Your task to perform on an android device: turn off javascript in the chrome app Image 0: 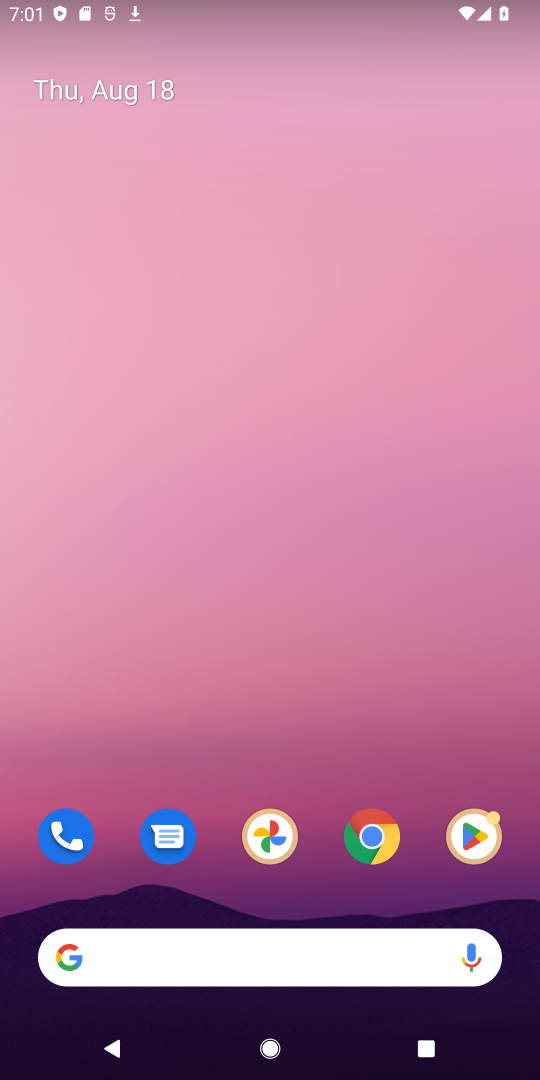
Step 0: drag from (280, 751) to (314, 1)
Your task to perform on an android device: turn off javascript in the chrome app Image 1: 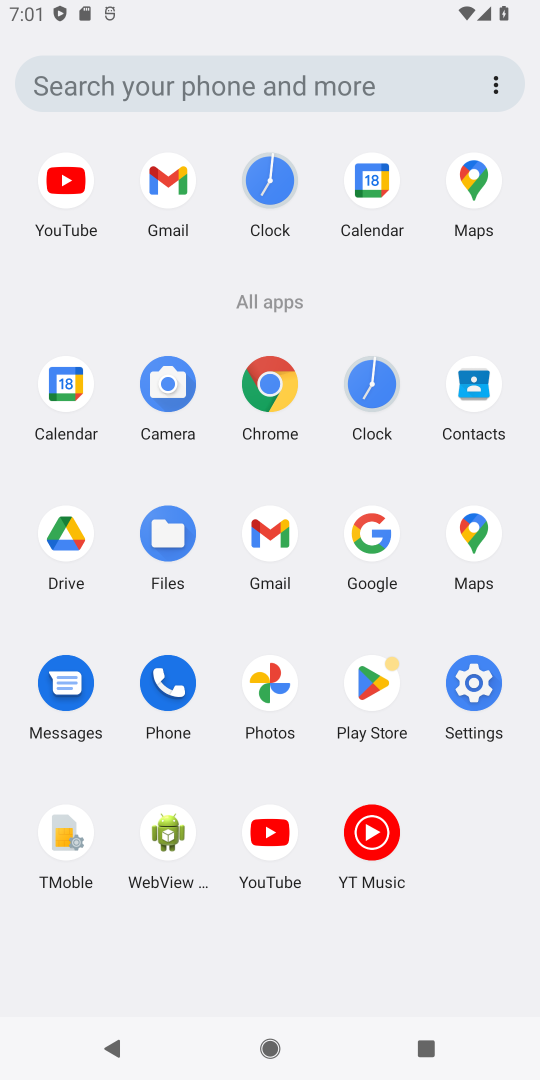
Step 1: click (275, 367)
Your task to perform on an android device: turn off javascript in the chrome app Image 2: 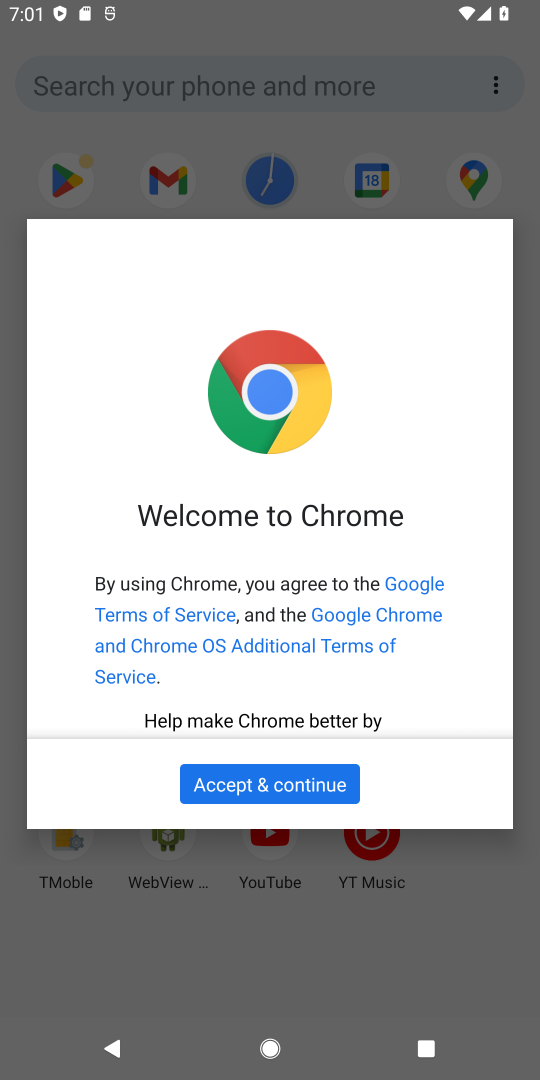
Step 2: click (327, 781)
Your task to perform on an android device: turn off javascript in the chrome app Image 3: 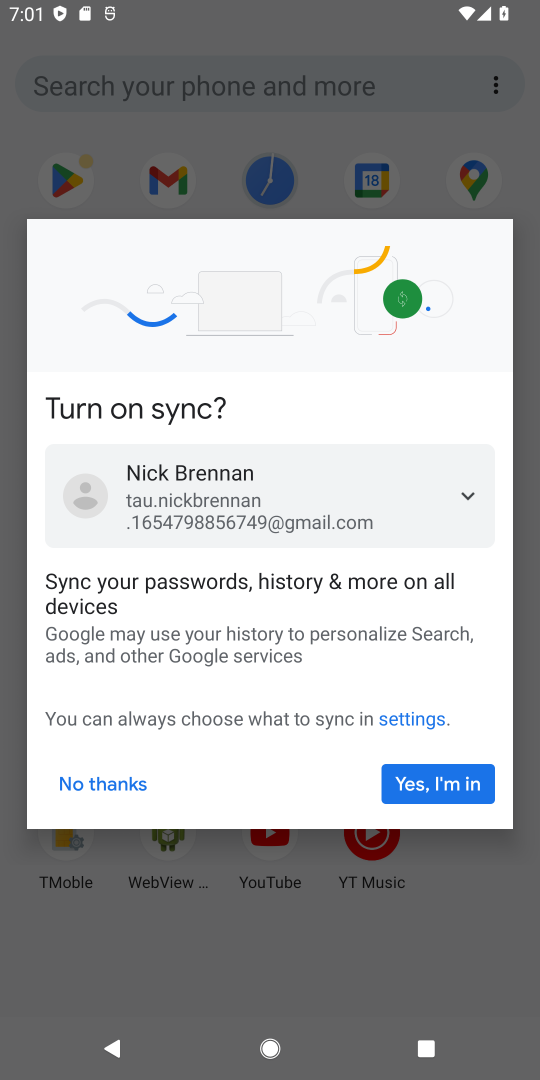
Step 3: click (449, 798)
Your task to perform on an android device: turn off javascript in the chrome app Image 4: 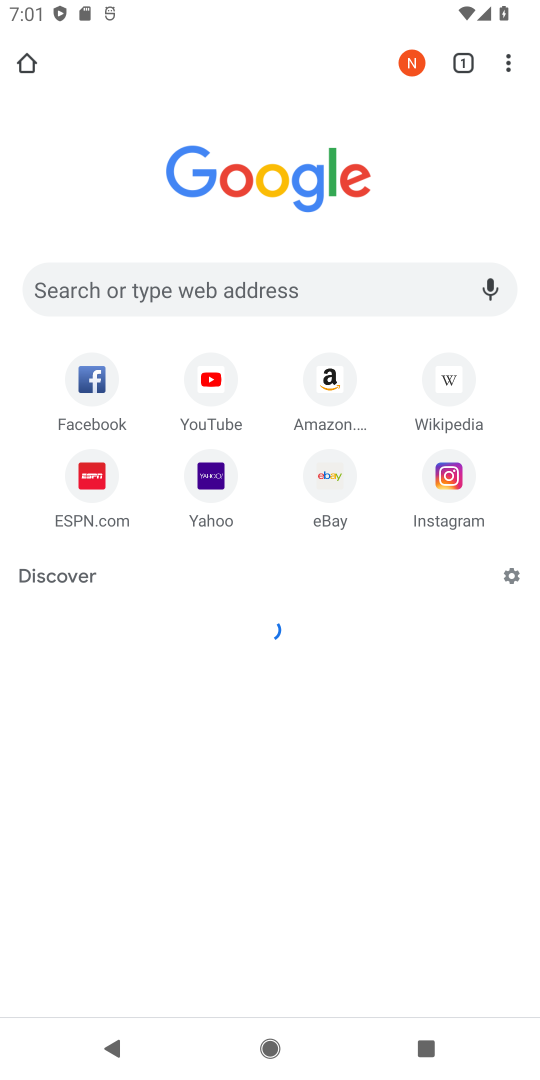
Step 4: drag from (509, 54) to (351, 533)
Your task to perform on an android device: turn off javascript in the chrome app Image 5: 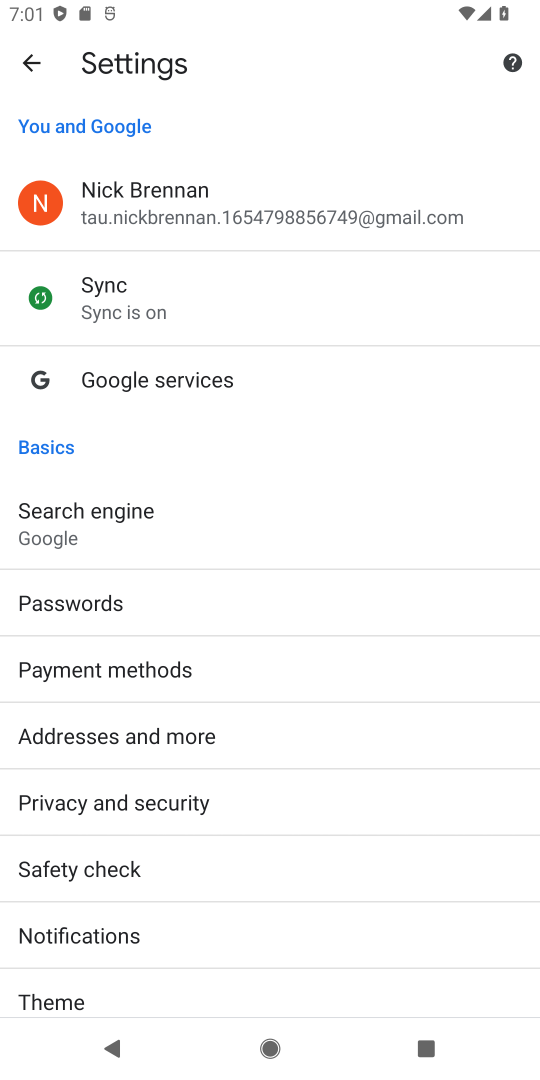
Step 5: drag from (198, 884) to (241, 321)
Your task to perform on an android device: turn off javascript in the chrome app Image 6: 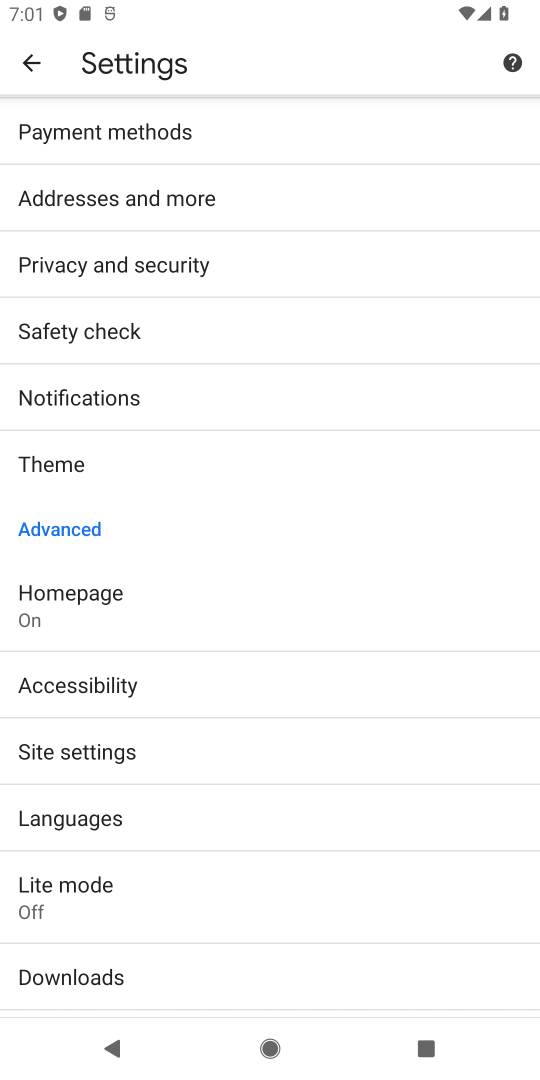
Step 6: click (79, 743)
Your task to perform on an android device: turn off javascript in the chrome app Image 7: 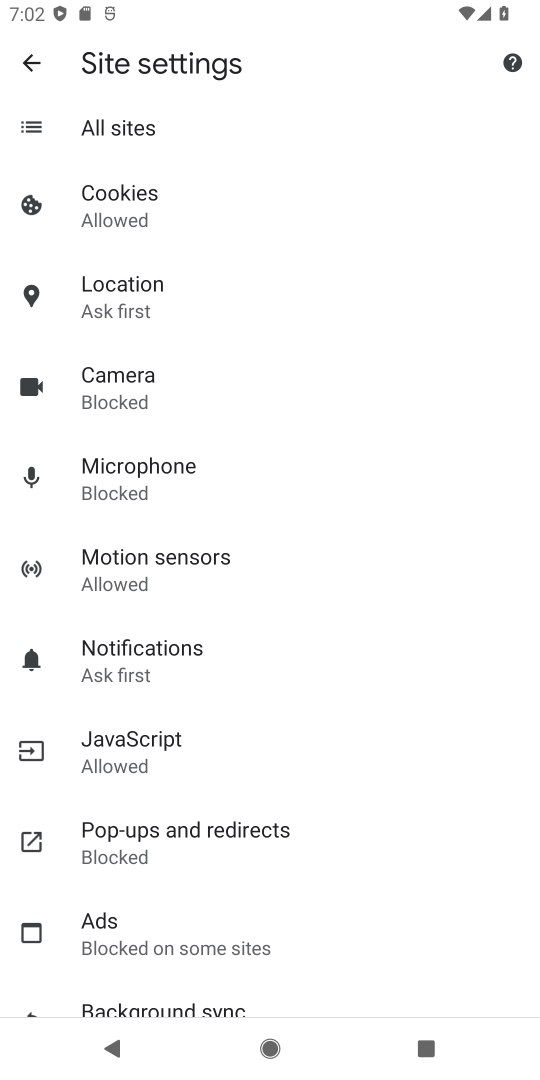
Step 7: click (112, 741)
Your task to perform on an android device: turn off javascript in the chrome app Image 8: 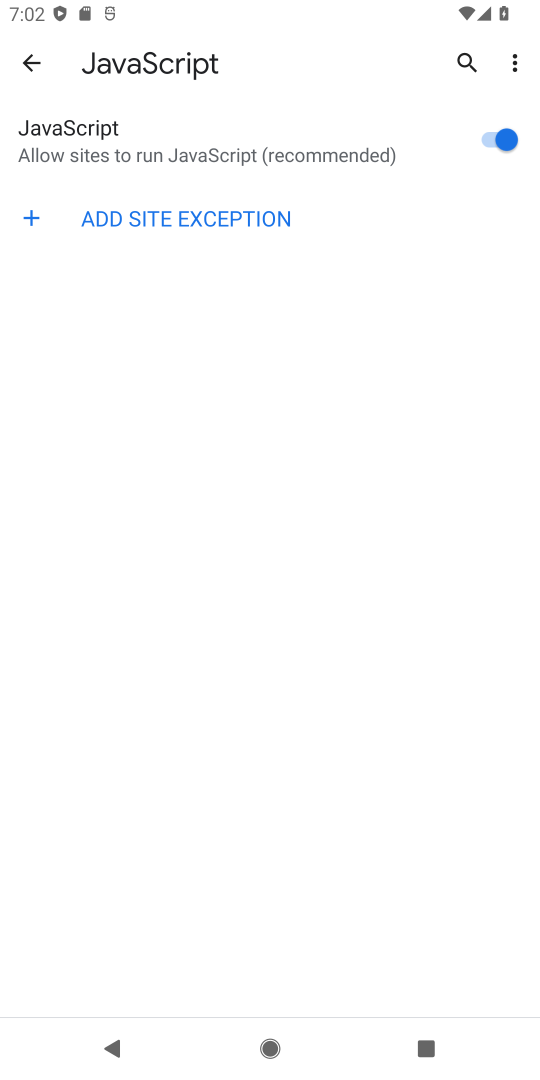
Step 8: click (488, 130)
Your task to perform on an android device: turn off javascript in the chrome app Image 9: 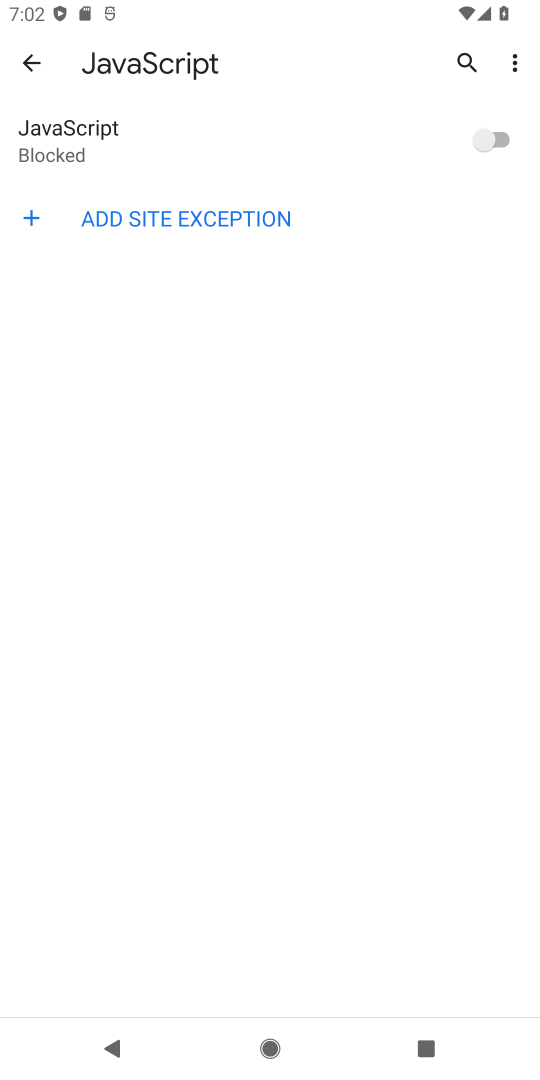
Step 9: task complete